Your task to perform on an android device: Check the weather Image 0: 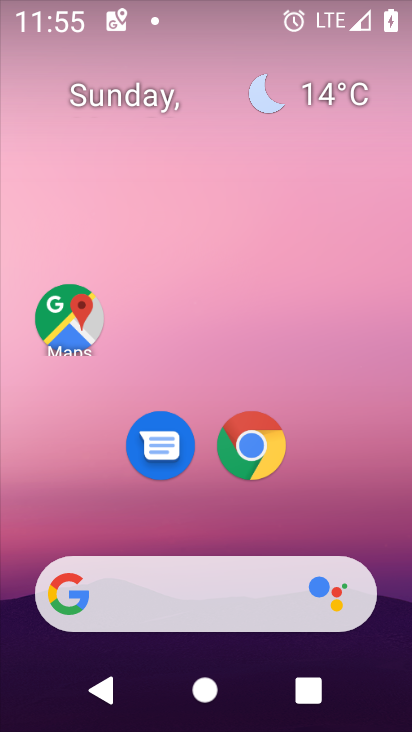
Step 0: drag from (199, 473) to (249, 141)
Your task to perform on an android device: Check the weather Image 1: 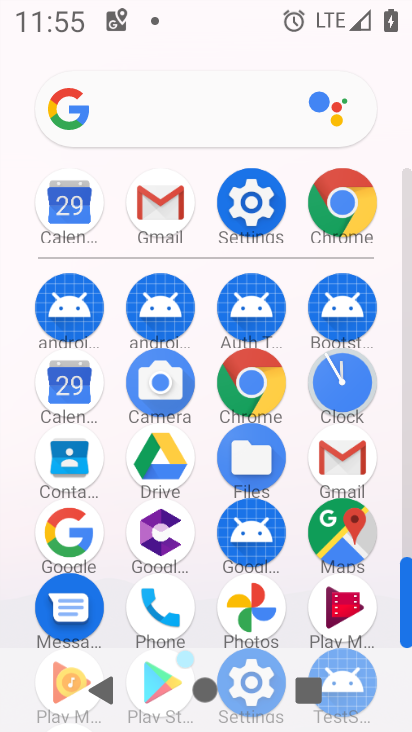
Step 1: click (146, 112)
Your task to perform on an android device: Check the weather Image 2: 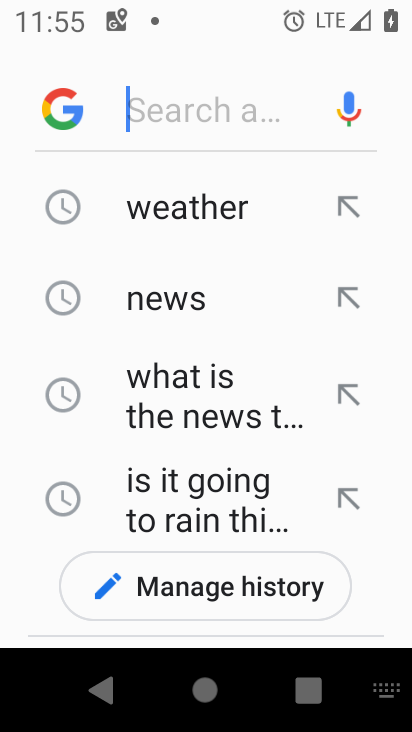
Step 2: click (211, 214)
Your task to perform on an android device: Check the weather Image 3: 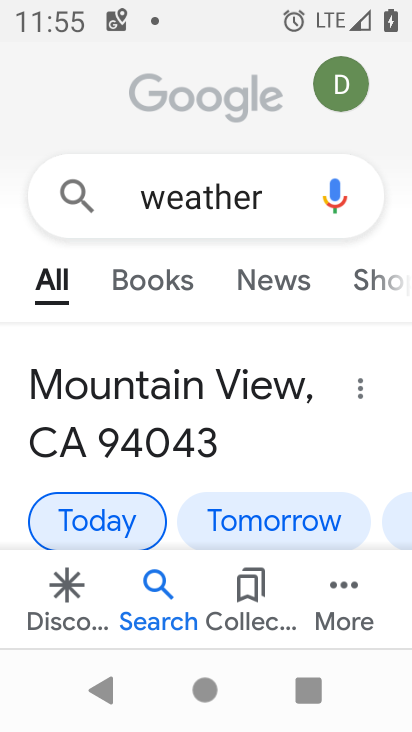
Step 3: task complete